Your task to perform on an android device: turn on the 12-hour format for clock Image 0: 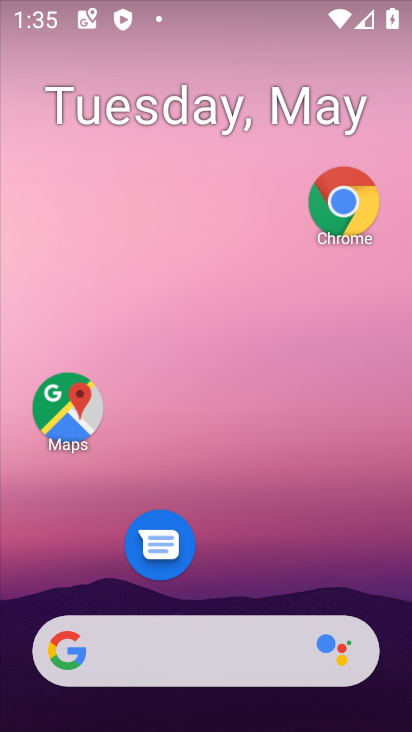
Step 0: drag from (277, 583) to (236, 58)
Your task to perform on an android device: turn on the 12-hour format for clock Image 1: 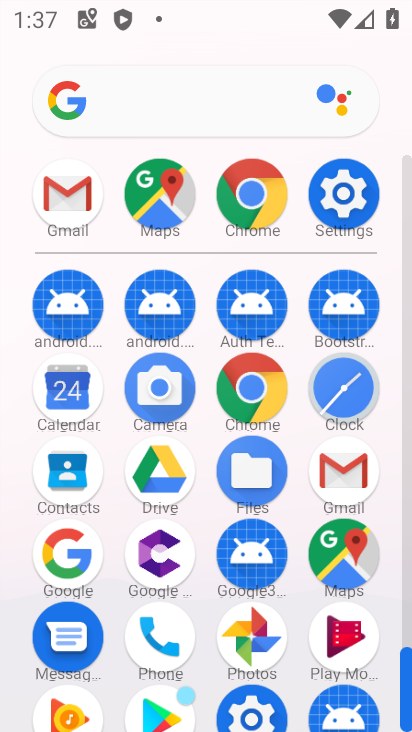
Step 1: click (340, 401)
Your task to perform on an android device: turn on the 12-hour format for clock Image 2: 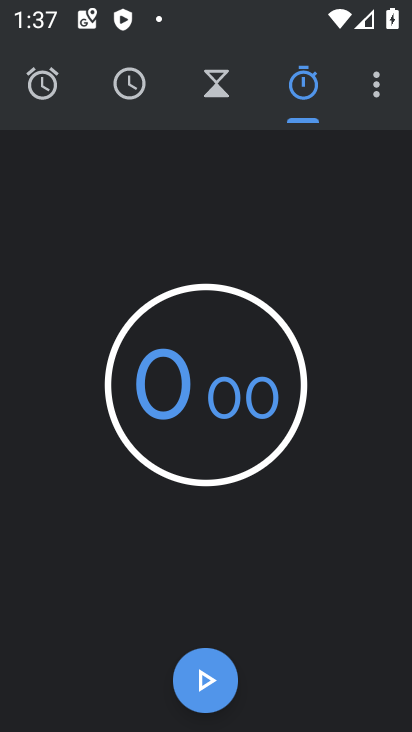
Step 2: click (386, 89)
Your task to perform on an android device: turn on the 12-hour format for clock Image 3: 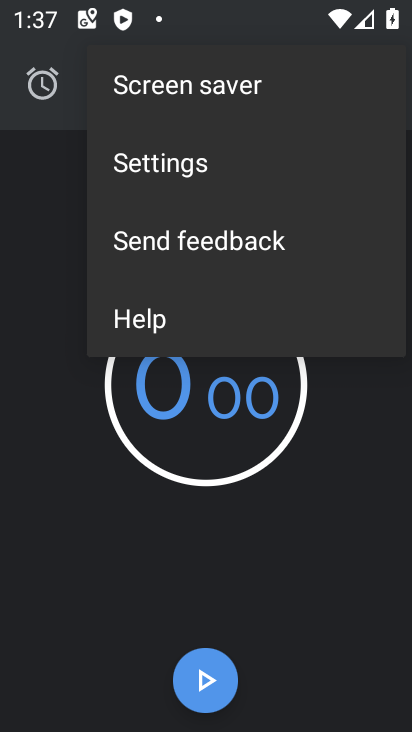
Step 3: click (241, 159)
Your task to perform on an android device: turn on the 12-hour format for clock Image 4: 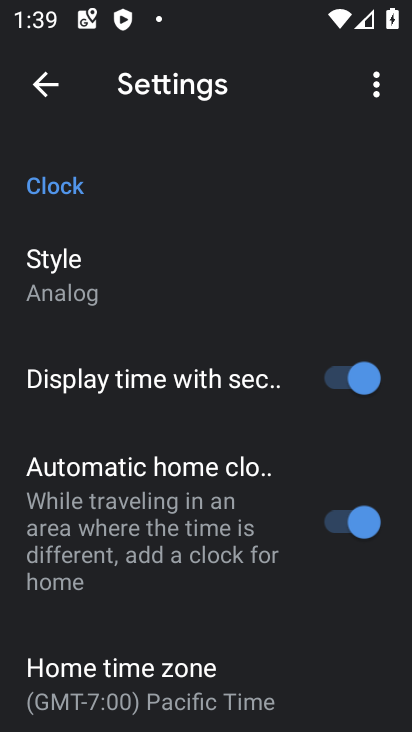
Step 4: task complete